Your task to perform on an android device: Show me popular videos on Youtube Image 0: 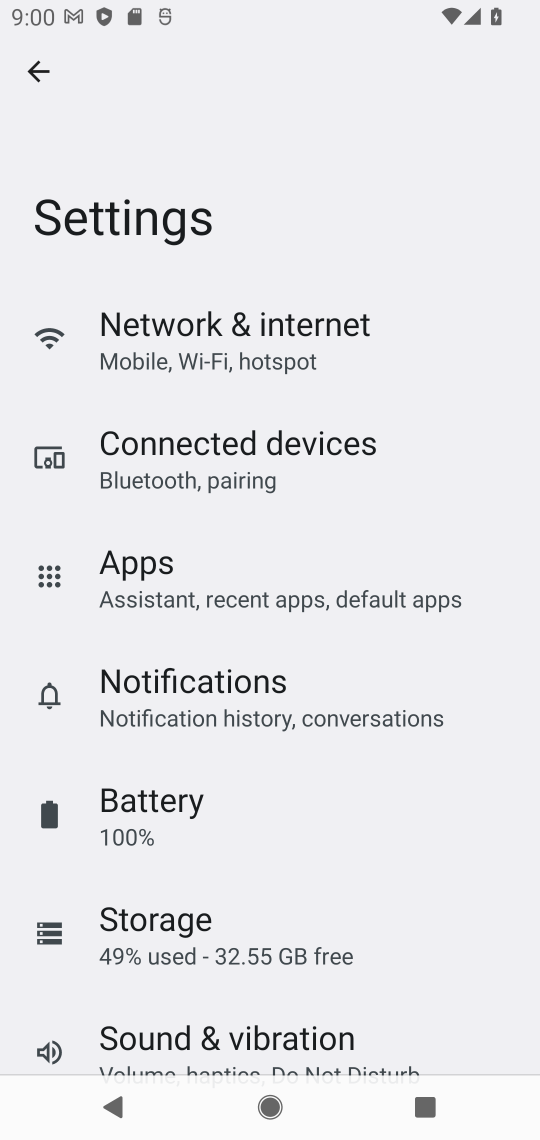
Step 0: press home button
Your task to perform on an android device: Show me popular videos on Youtube Image 1: 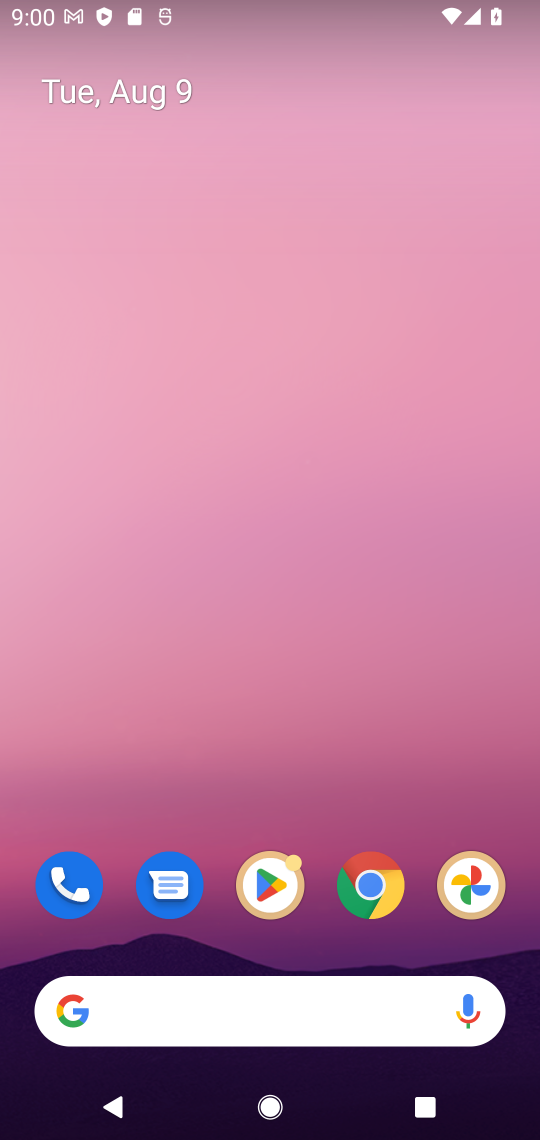
Step 1: drag from (321, 742) to (306, 6)
Your task to perform on an android device: Show me popular videos on Youtube Image 2: 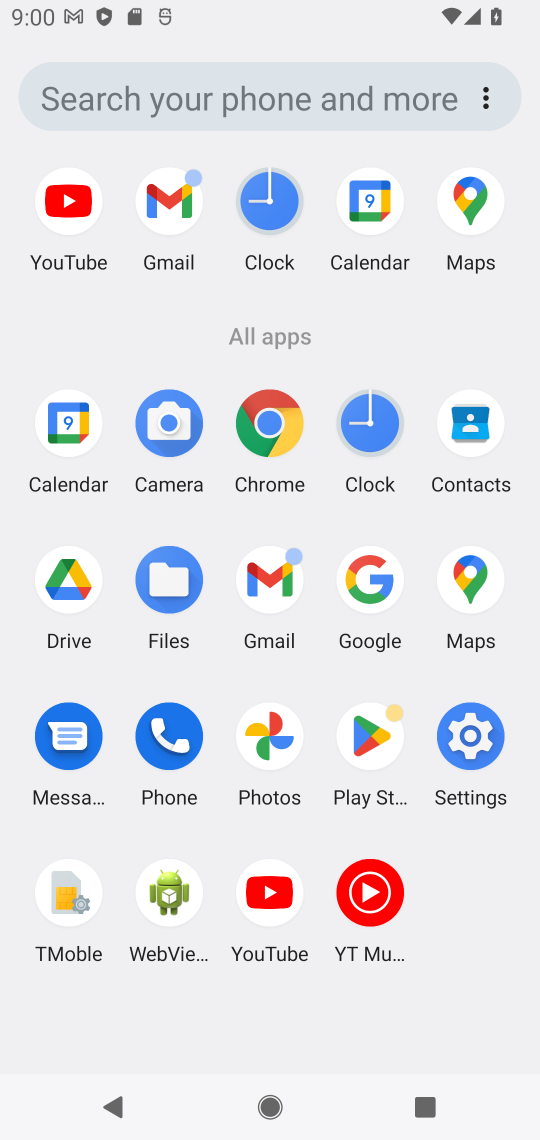
Step 2: click (48, 201)
Your task to perform on an android device: Show me popular videos on Youtube Image 3: 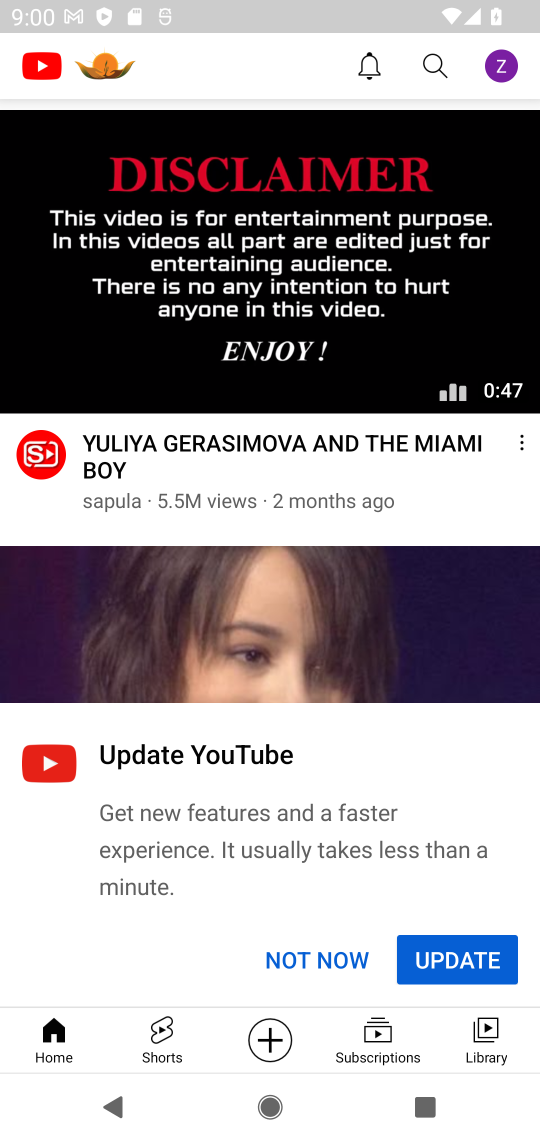
Step 3: drag from (158, 377) to (198, 739)
Your task to perform on an android device: Show me popular videos on Youtube Image 4: 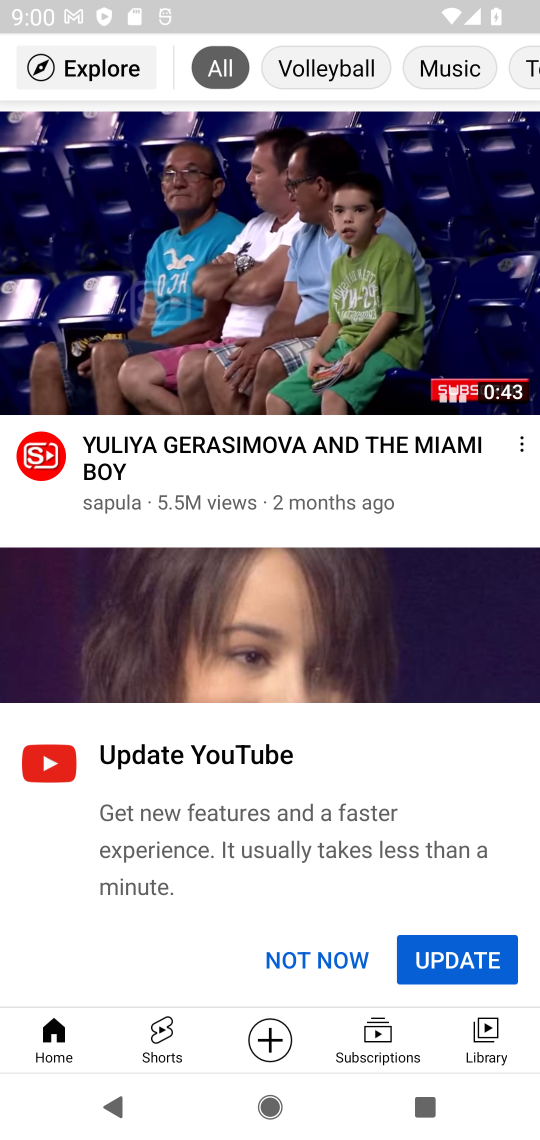
Step 4: click (110, 78)
Your task to perform on an android device: Show me popular videos on Youtube Image 5: 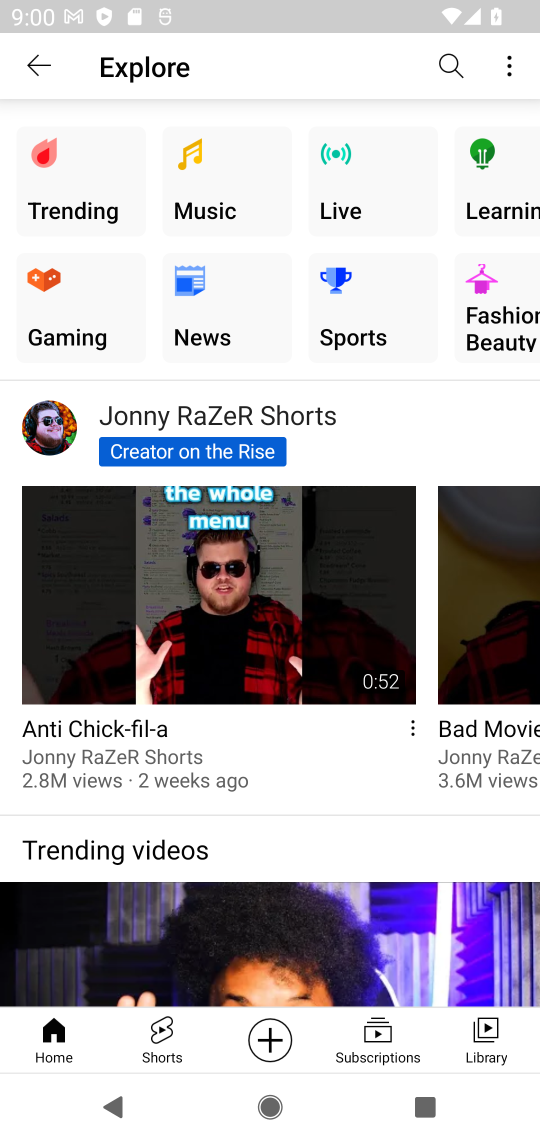
Step 5: click (68, 201)
Your task to perform on an android device: Show me popular videos on Youtube Image 6: 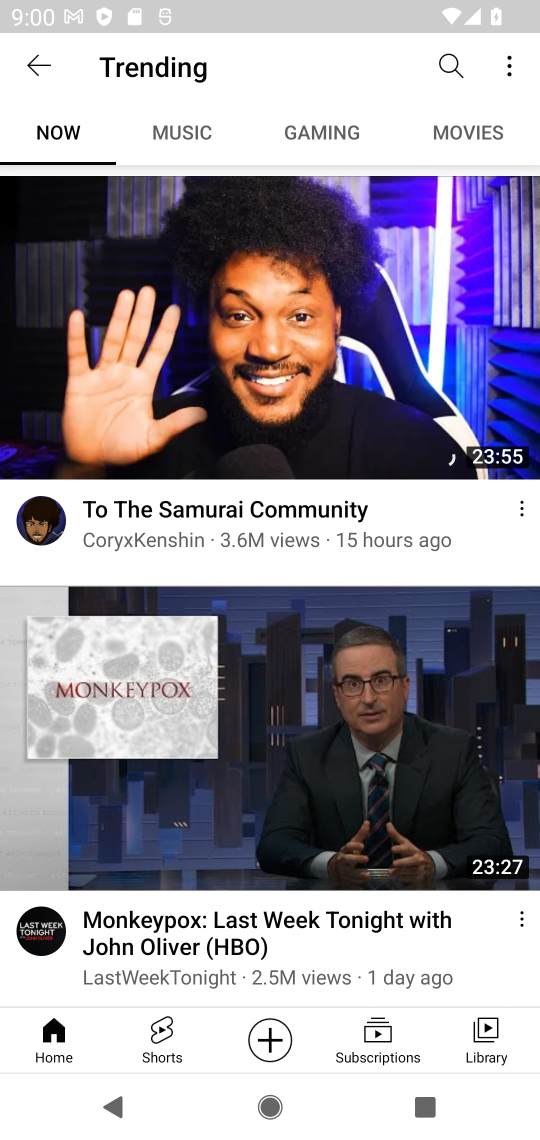
Step 6: task complete